Your task to perform on an android device: Open sound settings Image 0: 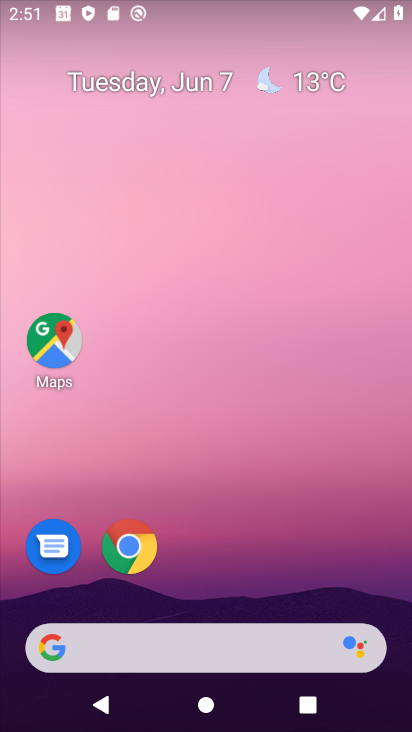
Step 0: drag from (228, 523) to (219, 207)
Your task to perform on an android device: Open sound settings Image 1: 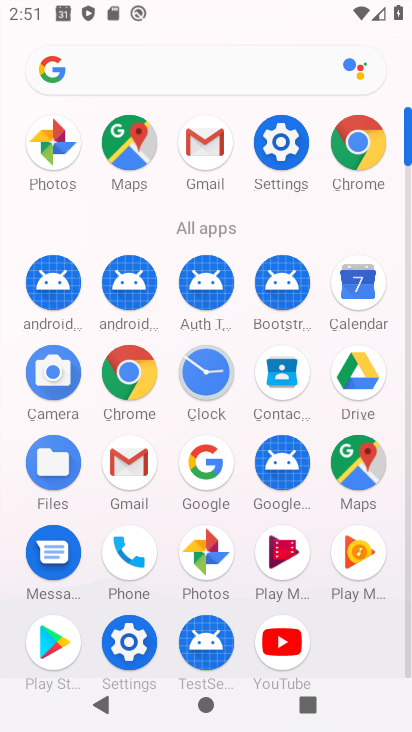
Step 1: click (282, 152)
Your task to perform on an android device: Open sound settings Image 2: 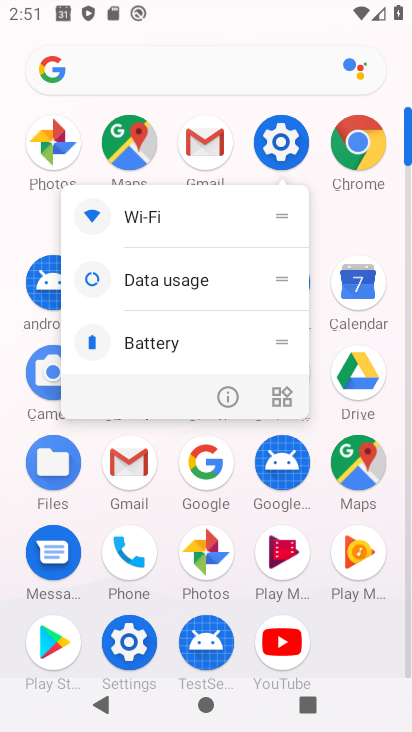
Step 2: click (279, 141)
Your task to perform on an android device: Open sound settings Image 3: 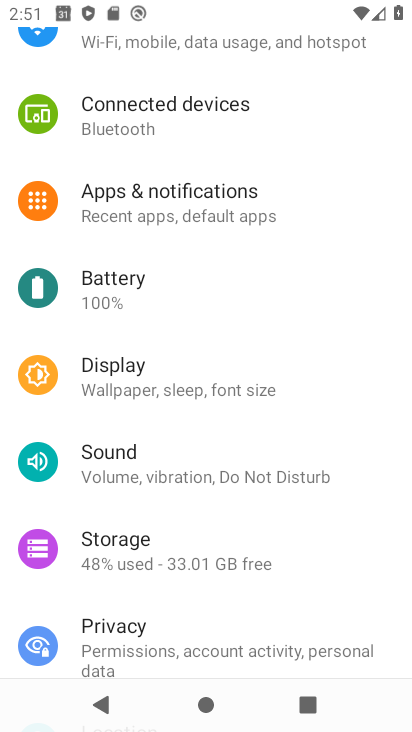
Step 3: click (106, 455)
Your task to perform on an android device: Open sound settings Image 4: 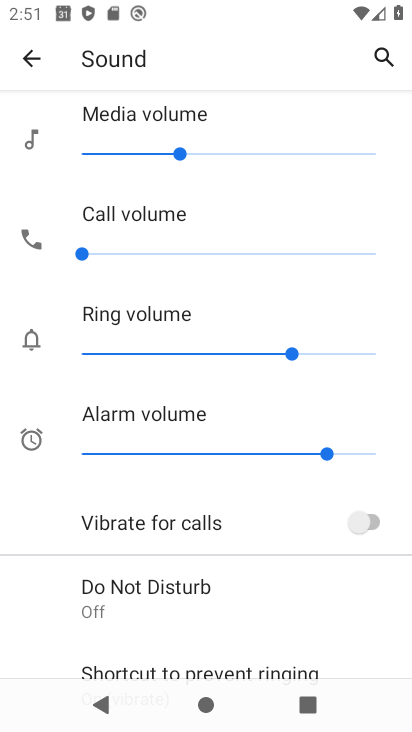
Step 4: task complete